Your task to perform on an android device: Open calendar and show me the second week of next month Image 0: 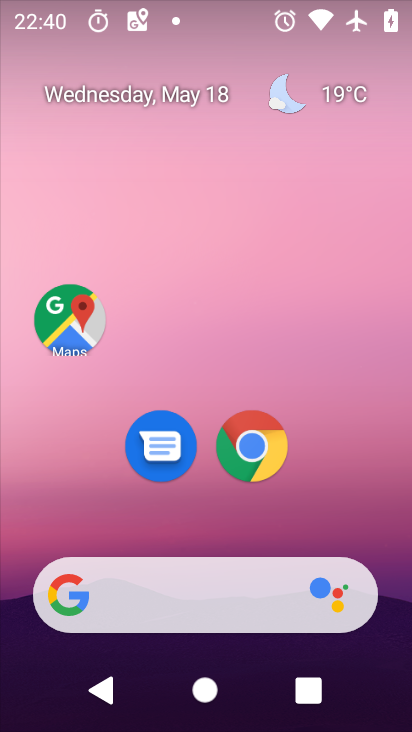
Step 0: press home button
Your task to perform on an android device: Open calendar and show me the second week of next month Image 1: 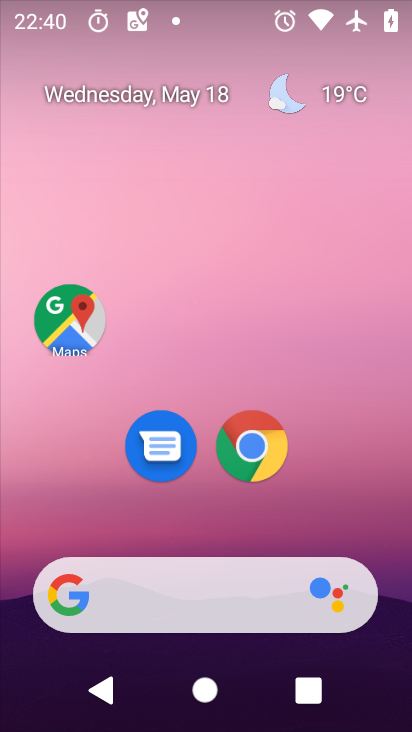
Step 1: drag from (184, 583) to (307, 236)
Your task to perform on an android device: Open calendar and show me the second week of next month Image 2: 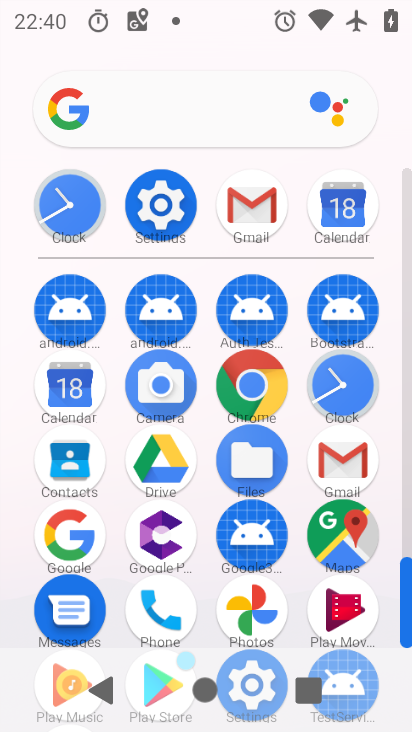
Step 2: click (85, 382)
Your task to perform on an android device: Open calendar and show me the second week of next month Image 3: 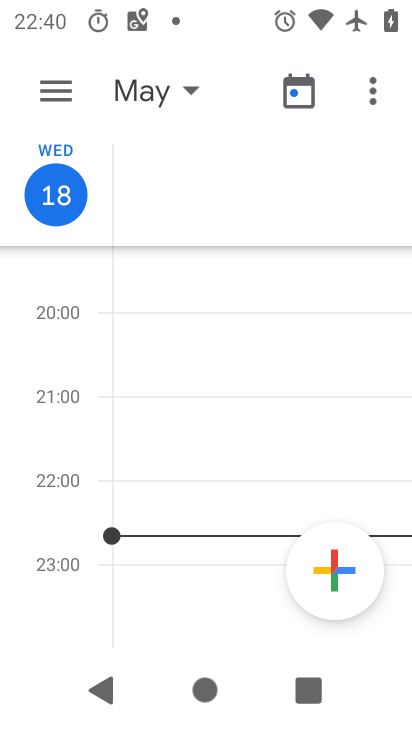
Step 3: click (151, 97)
Your task to perform on an android device: Open calendar and show me the second week of next month Image 4: 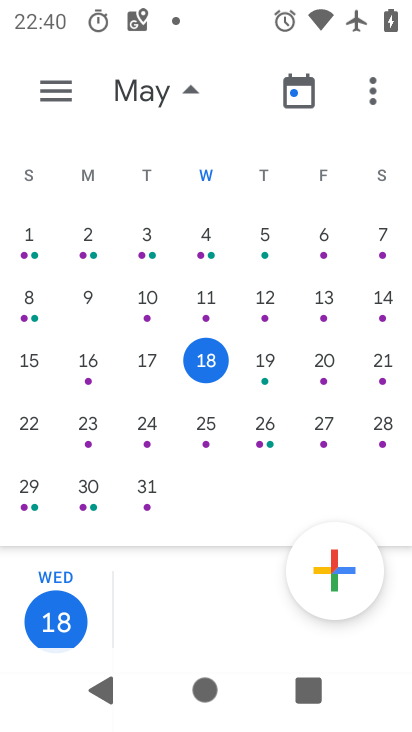
Step 4: drag from (351, 382) to (74, 363)
Your task to perform on an android device: Open calendar and show me the second week of next month Image 5: 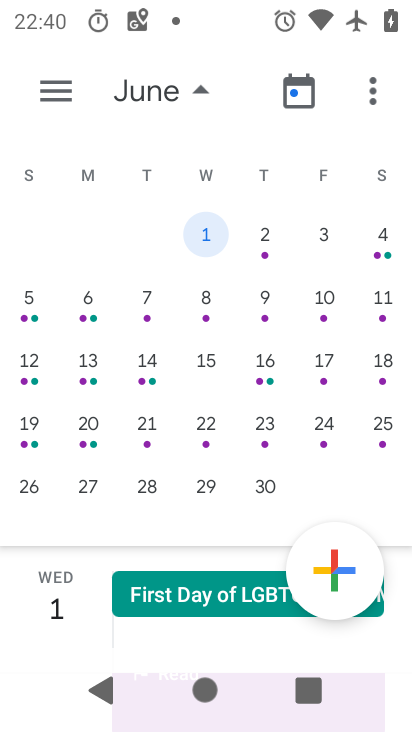
Step 5: click (38, 294)
Your task to perform on an android device: Open calendar and show me the second week of next month Image 6: 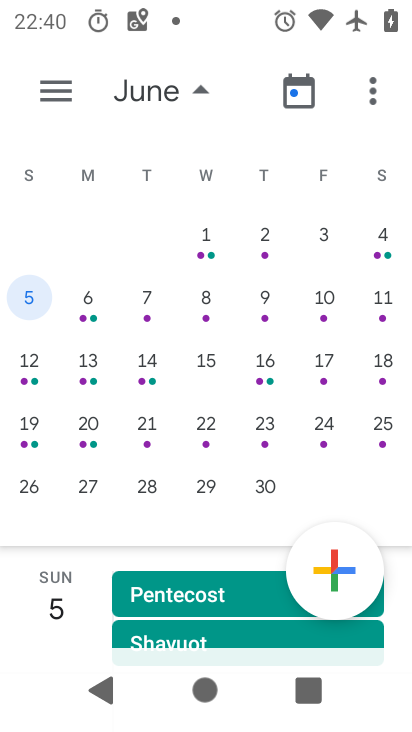
Step 6: click (59, 83)
Your task to perform on an android device: Open calendar and show me the second week of next month Image 7: 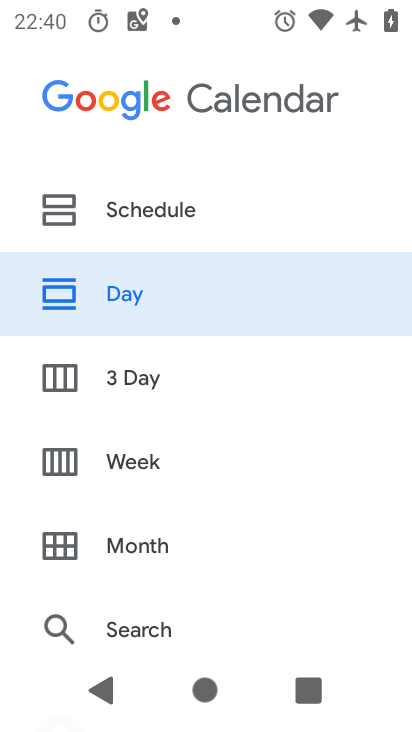
Step 7: click (128, 456)
Your task to perform on an android device: Open calendar and show me the second week of next month Image 8: 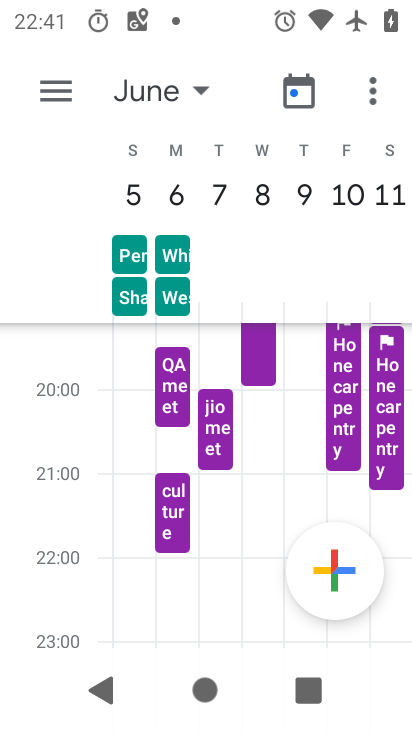
Step 8: task complete